Your task to perform on an android device: Open my contact list Image 0: 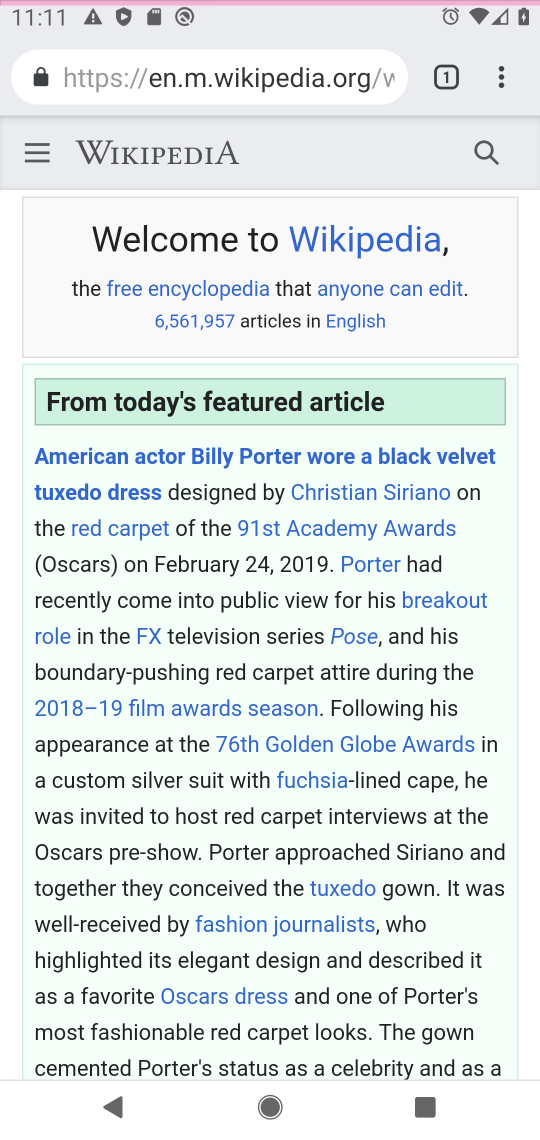
Step 0: press home button
Your task to perform on an android device: Open my contact list Image 1: 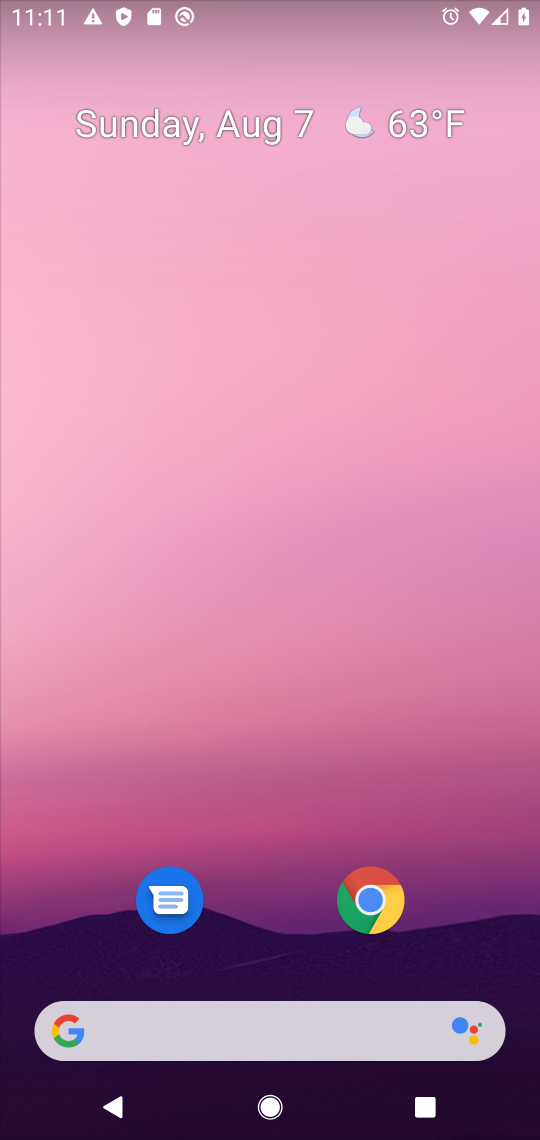
Step 1: press home button
Your task to perform on an android device: Open my contact list Image 2: 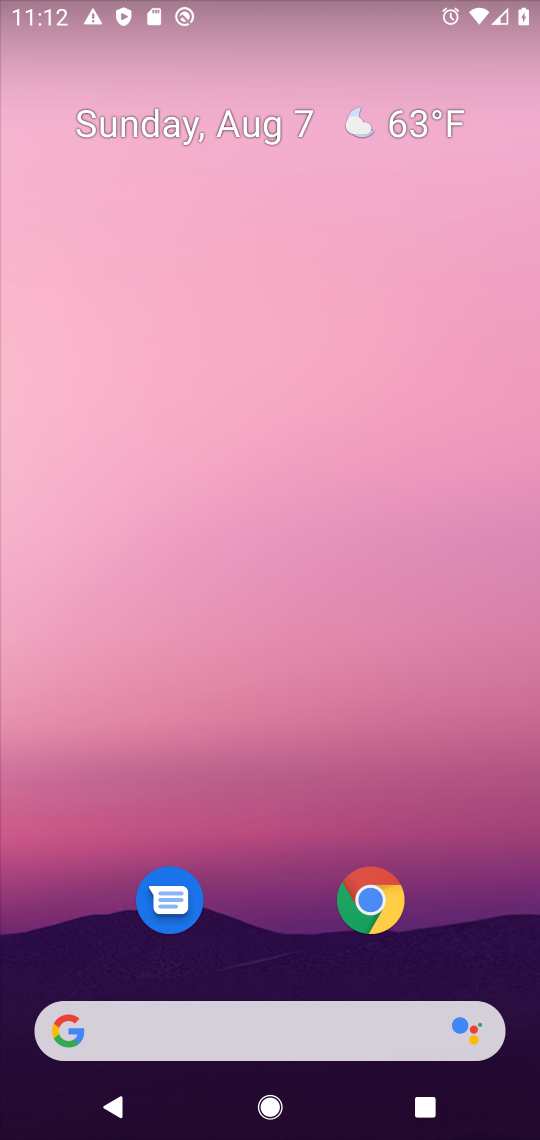
Step 2: drag from (279, 960) to (256, 211)
Your task to perform on an android device: Open my contact list Image 3: 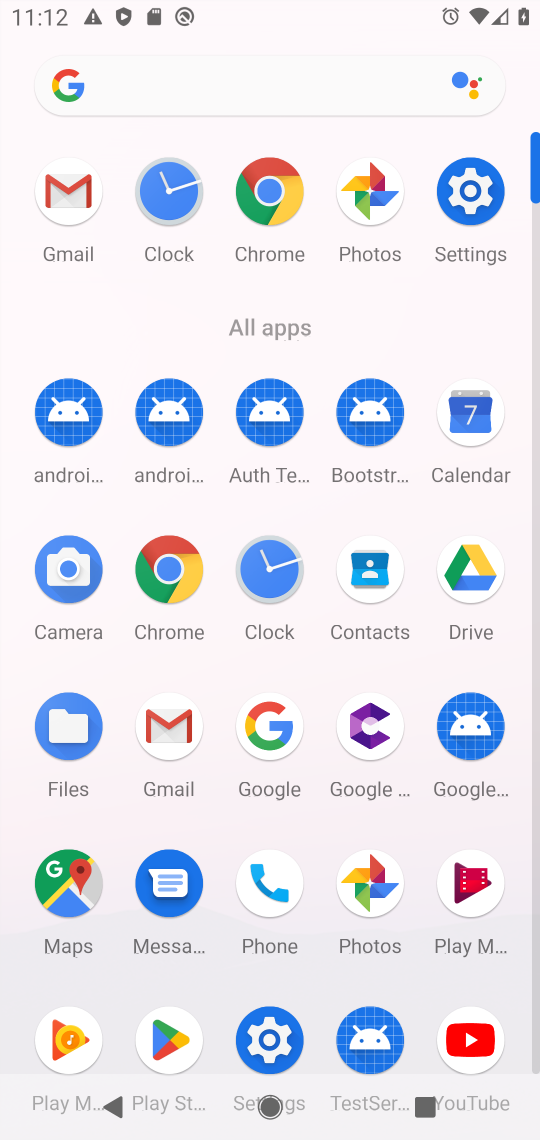
Step 3: click (371, 560)
Your task to perform on an android device: Open my contact list Image 4: 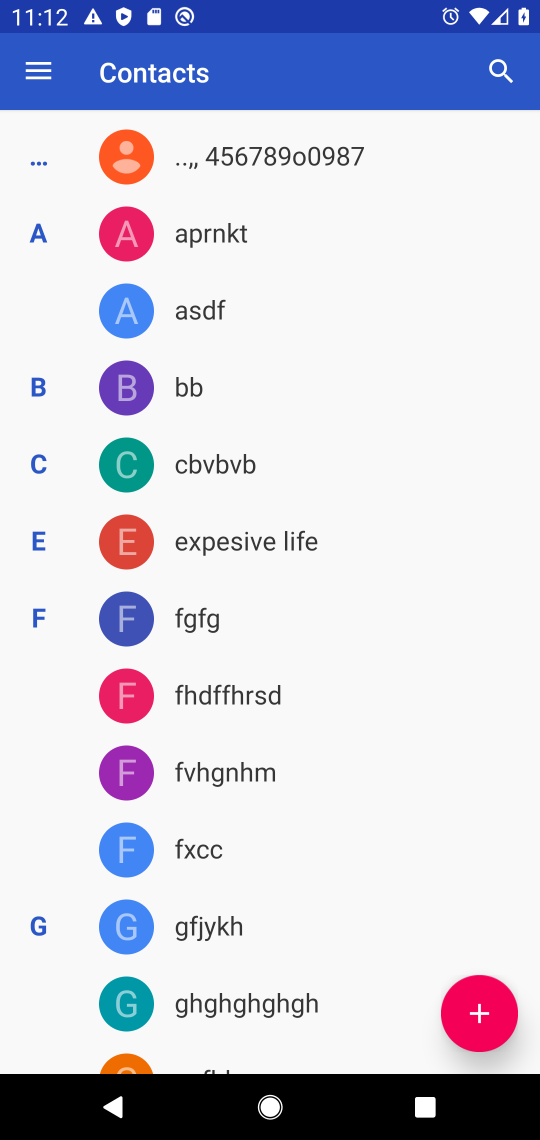
Step 4: task complete